Your task to perform on an android device: turn notification dots off Image 0: 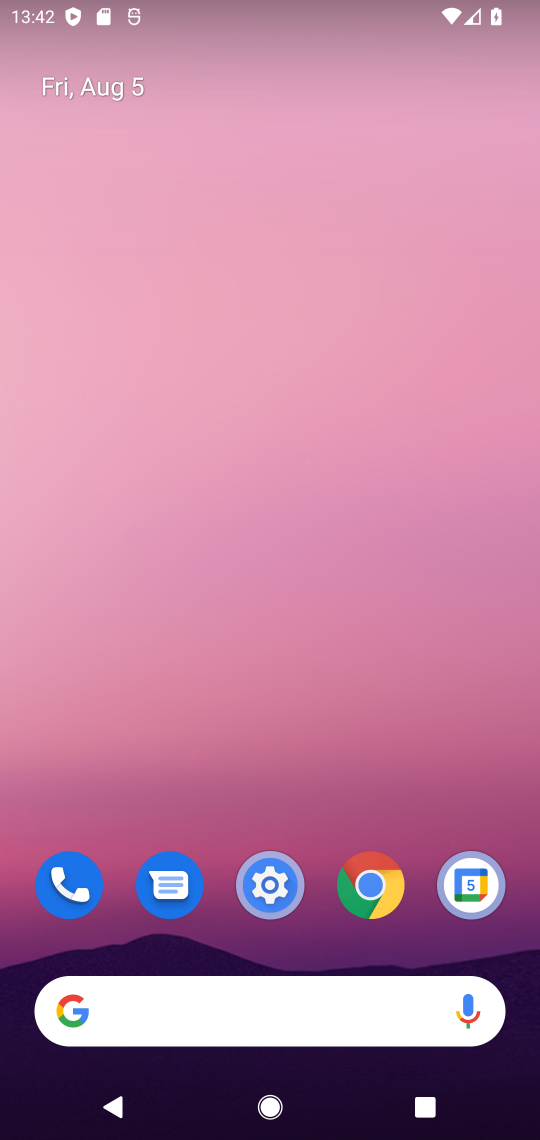
Step 0: click (268, 891)
Your task to perform on an android device: turn notification dots off Image 1: 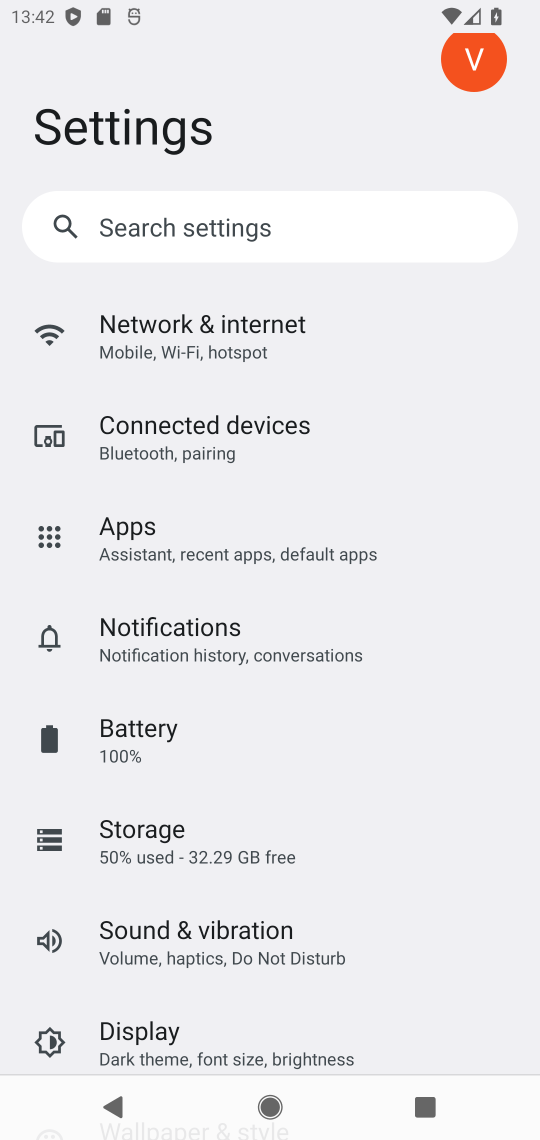
Step 1: click (214, 651)
Your task to perform on an android device: turn notification dots off Image 2: 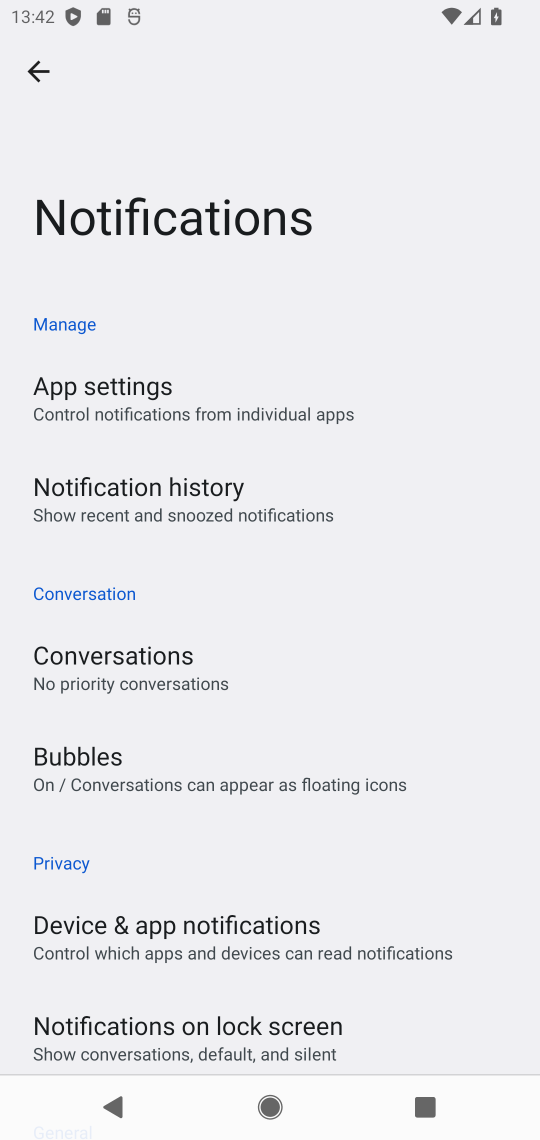
Step 2: drag from (250, 955) to (212, 477)
Your task to perform on an android device: turn notification dots off Image 3: 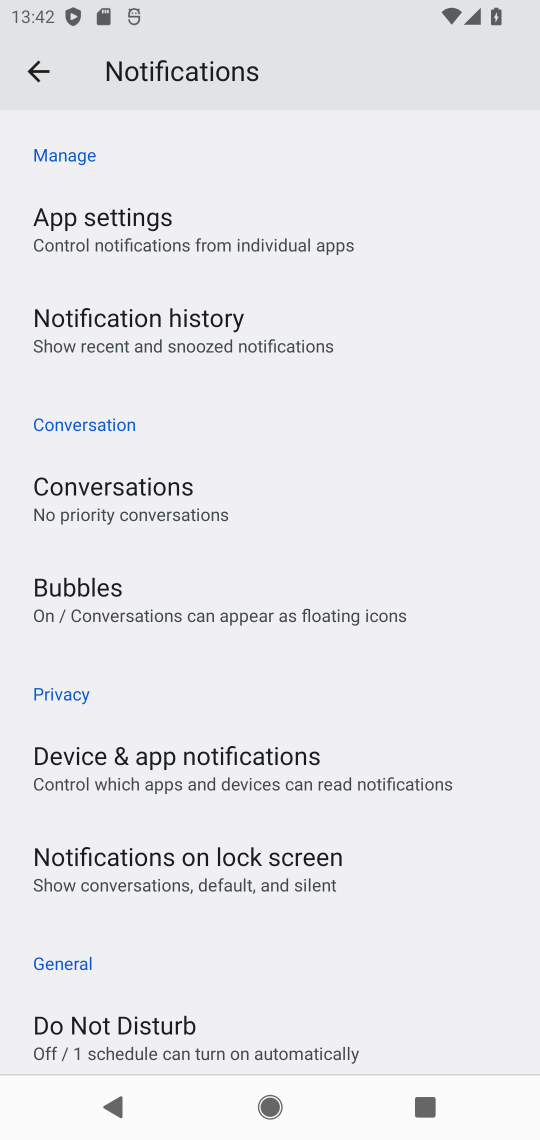
Step 3: drag from (308, 860) to (291, 640)
Your task to perform on an android device: turn notification dots off Image 4: 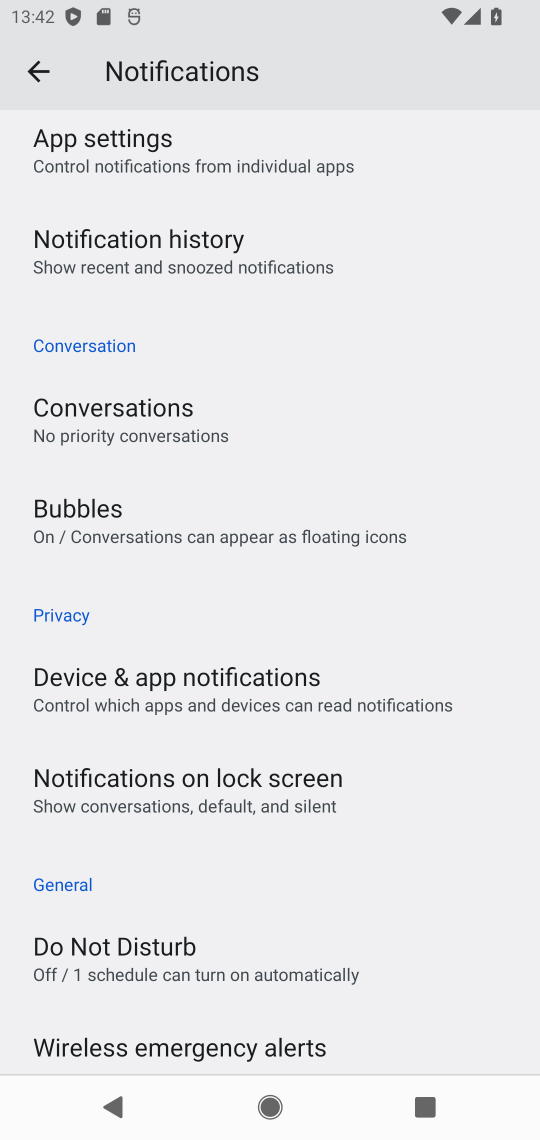
Step 4: drag from (335, 857) to (313, 730)
Your task to perform on an android device: turn notification dots off Image 5: 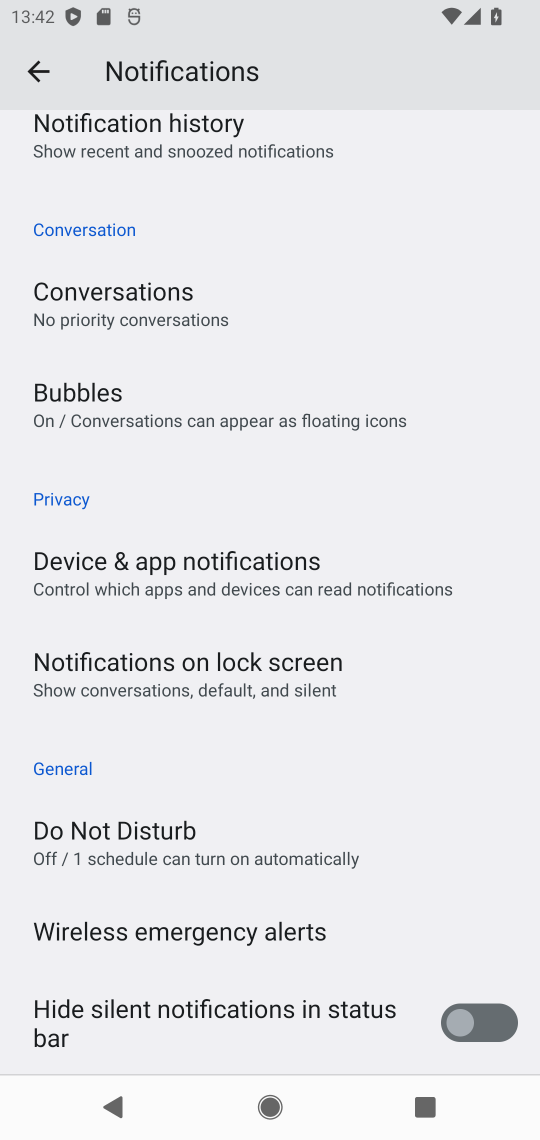
Step 5: drag from (338, 915) to (289, 590)
Your task to perform on an android device: turn notification dots off Image 6: 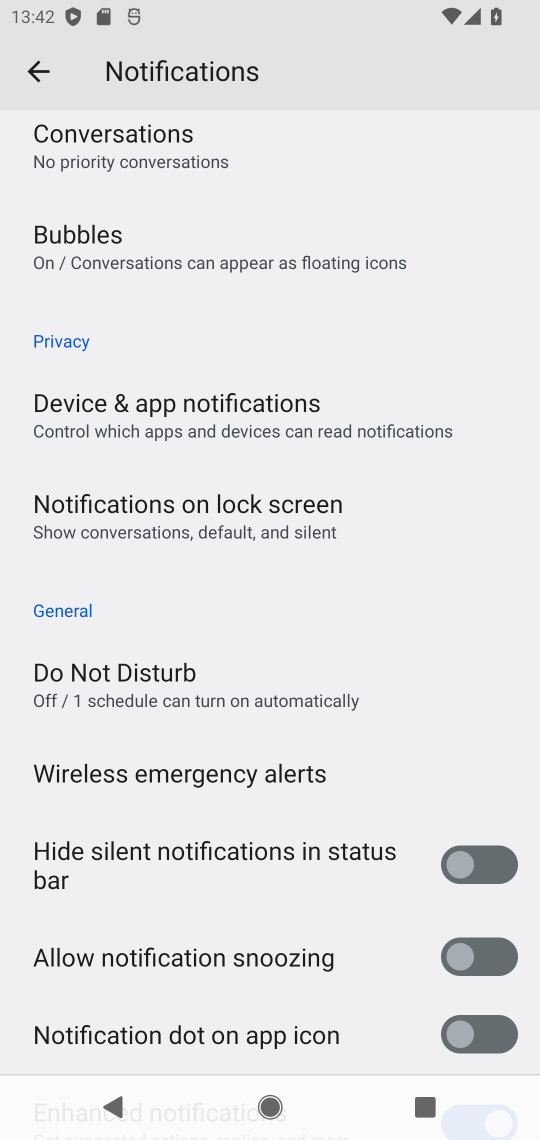
Step 6: click (504, 1037)
Your task to perform on an android device: turn notification dots off Image 7: 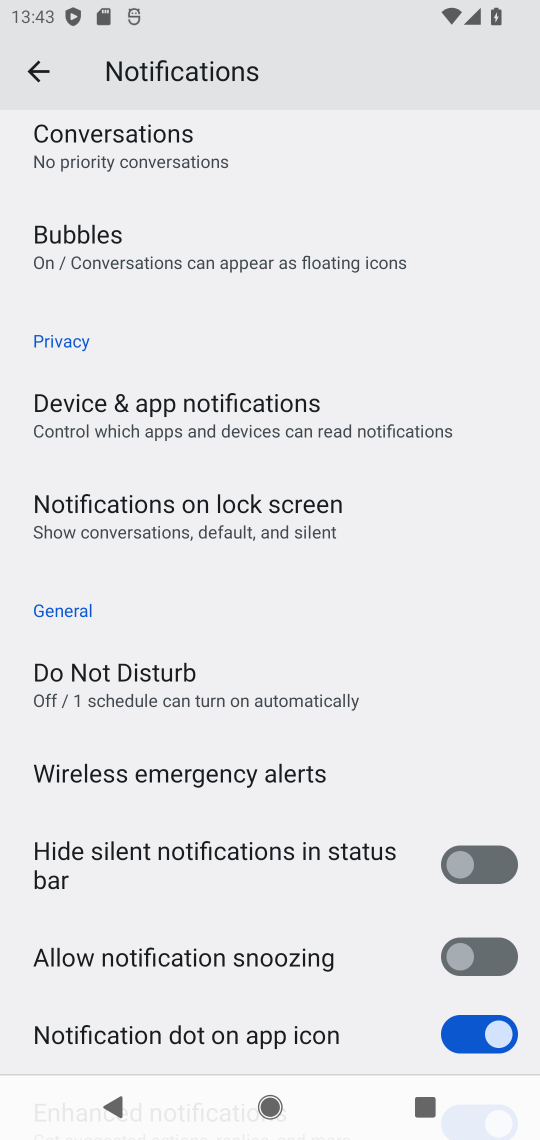
Step 7: task complete